Your task to perform on an android device: Go to notification settings Image 0: 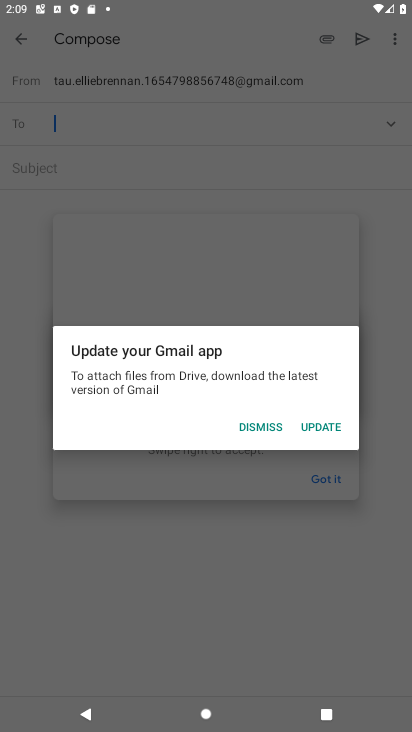
Step 0: press home button
Your task to perform on an android device: Go to notification settings Image 1: 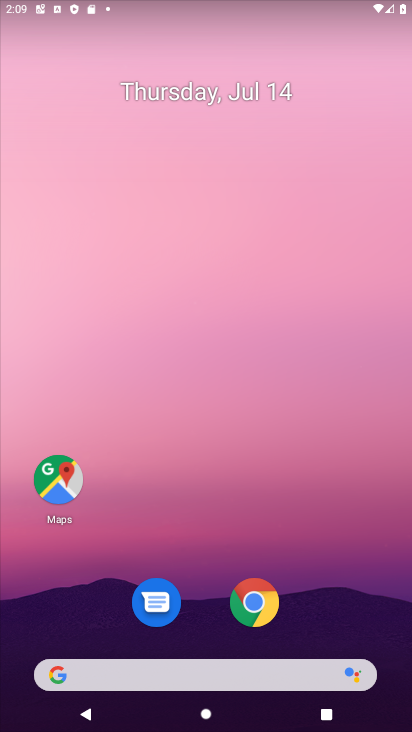
Step 1: drag from (396, 648) to (320, 156)
Your task to perform on an android device: Go to notification settings Image 2: 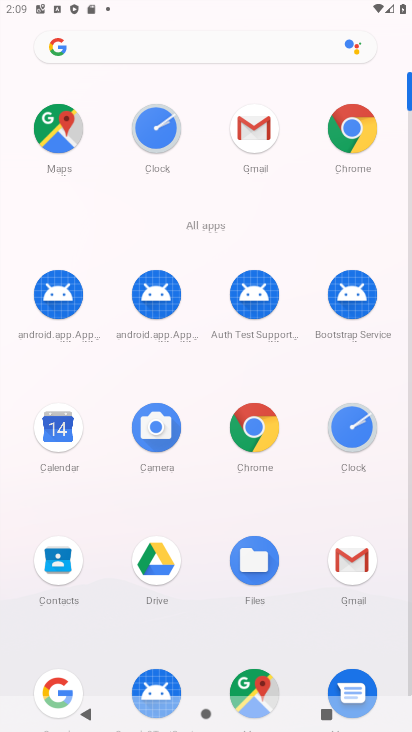
Step 2: click (409, 675)
Your task to perform on an android device: Go to notification settings Image 3: 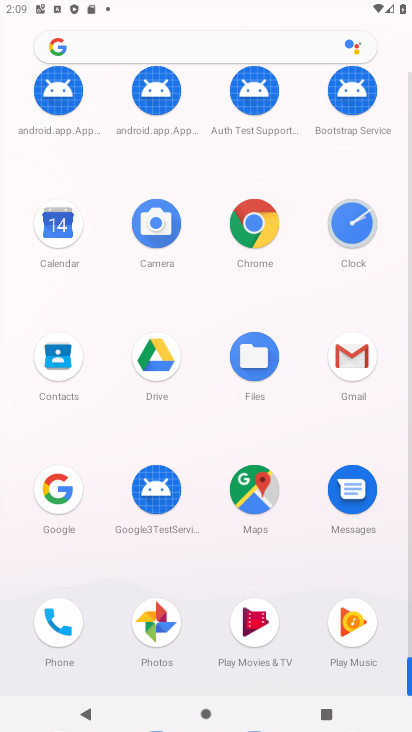
Step 3: drag from (409, 618) to (406, 499)
Your task to perform on an android device: Go to notification settings Image 4: 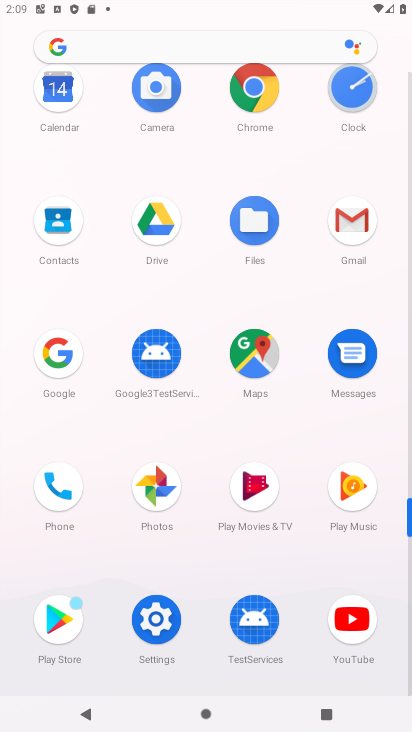
Step 4: click (155, 619)
Your task to perform on an android device: Go to notification settings Image 5: 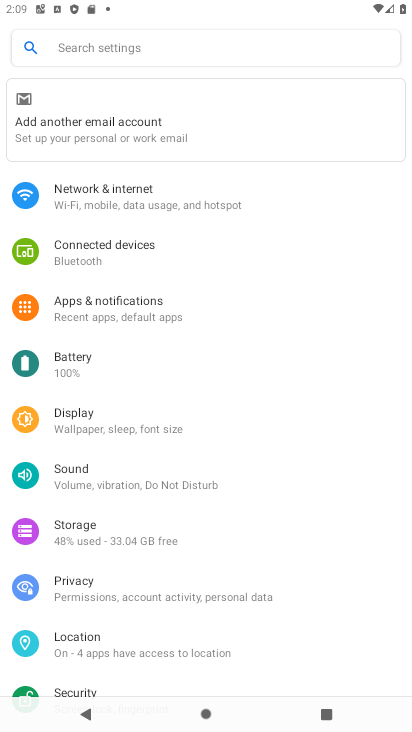
Step 5: click (87, 302)
Your task to perform on an android device: Go to notification settings Image 6: 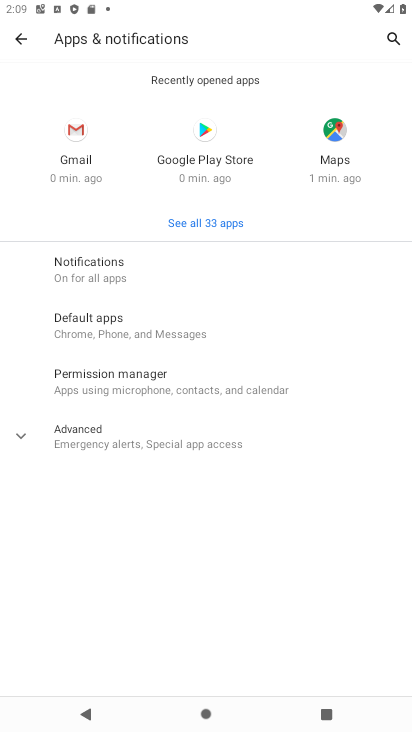
Step 6: click (80, 268)
Your task to perform on an android device: Go to notification settings Image 7: 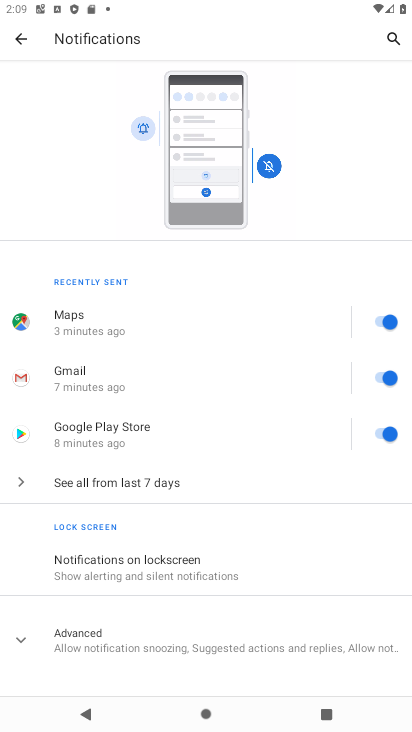
Step 7: drag from (230, 581) to (222, 194)
Your task to perform on an android device: Go to notification settings Image 8: 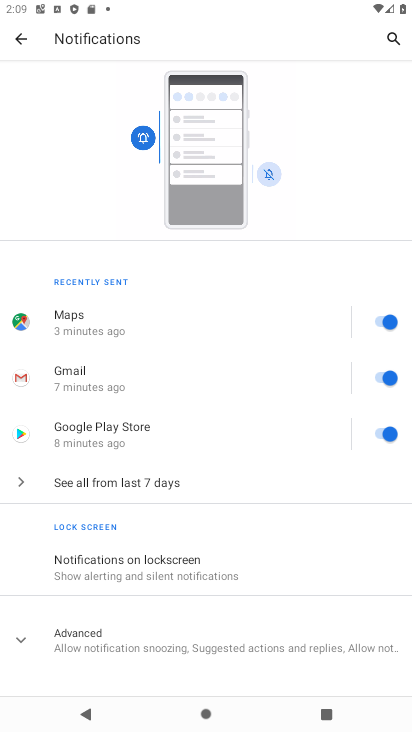
Step 8: click (18, 635)
Your task to perform on an android device: Go to notification settings Image 9: 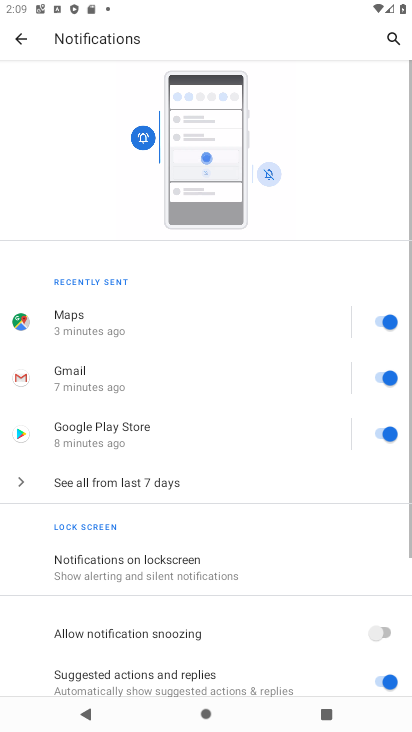
Step 9: task complete